Your task to perform on an android device: Go to wifi settings Image 0: 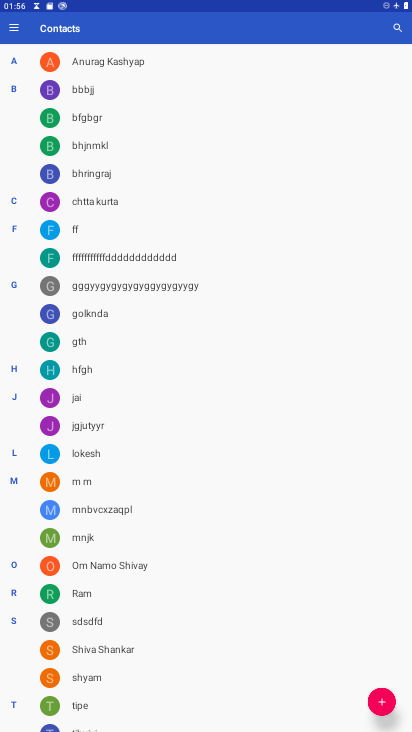
Step 0: press home button
Your task to perform on an android device: Go to wifi settings Image 1: 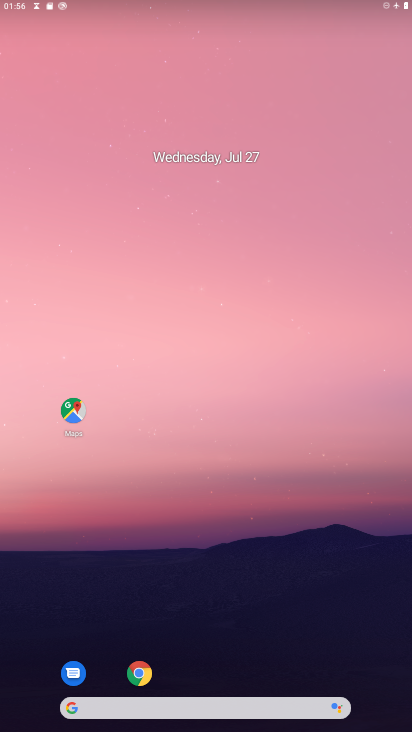
Step 1: drag from (136, 669) to (189, 218)
Your task to perform on an android device: Go to wifi settings Image 2: 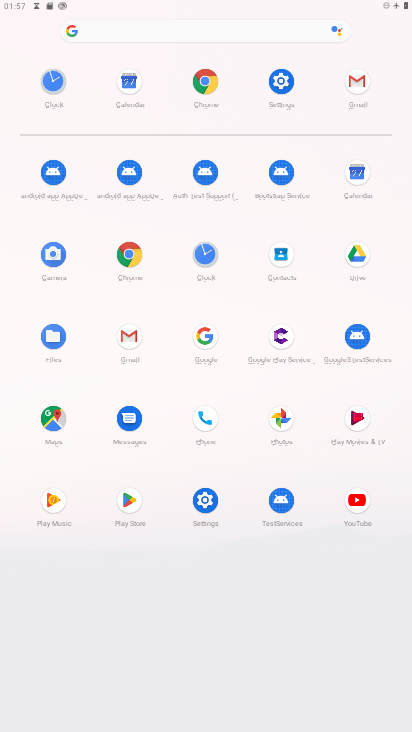
Step 2: click (282, 77)
Your task to perform on an android device: Go to wifi settings Image 3: 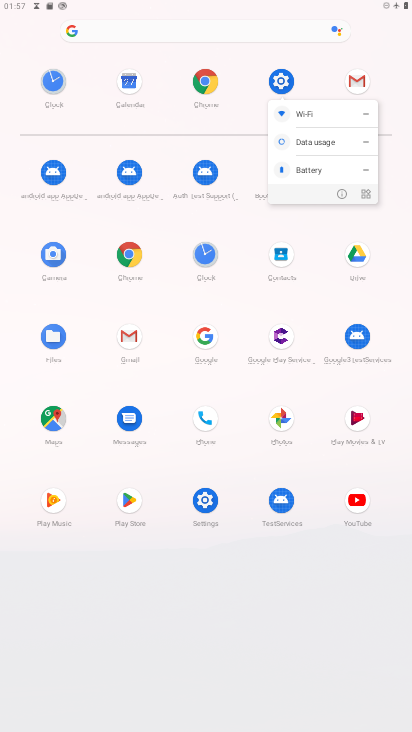
Step 3: click (287, 77)
Your task to perform on an android device: Go to wifi settings Image 4: 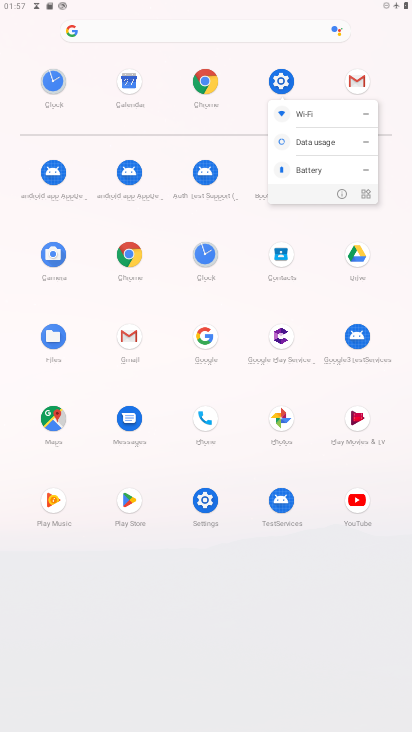
Step 4: click (287, 77)
Your task to perform on an android device: Go to wifi settings Image 5: 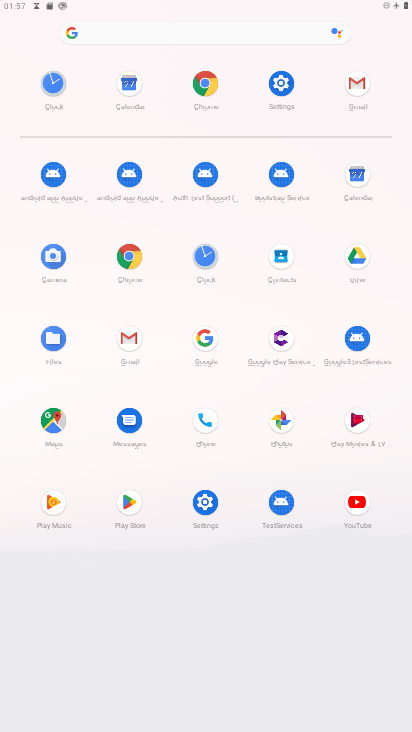
Step 5: click (275, 83)
Your task to perform on an android device: Go to wifi settings Image 6: 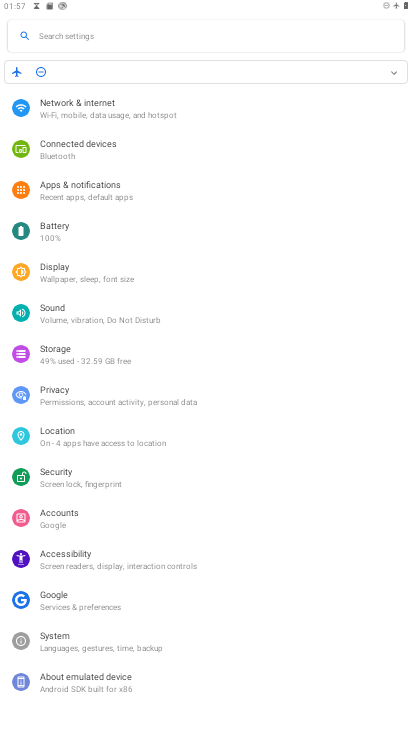
Step 6: click (86, 119)
Your task to perform on an android device: Go to wifi settings Image 7: 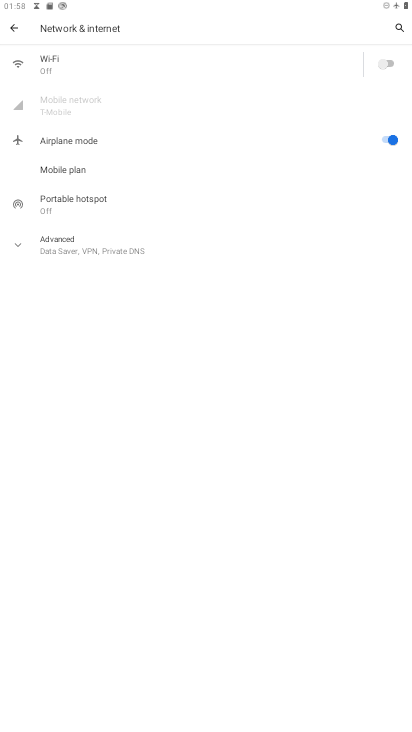
Step 7: click (188, 74)
Your task to perform on an android device: Go to wifi settings Image 8: 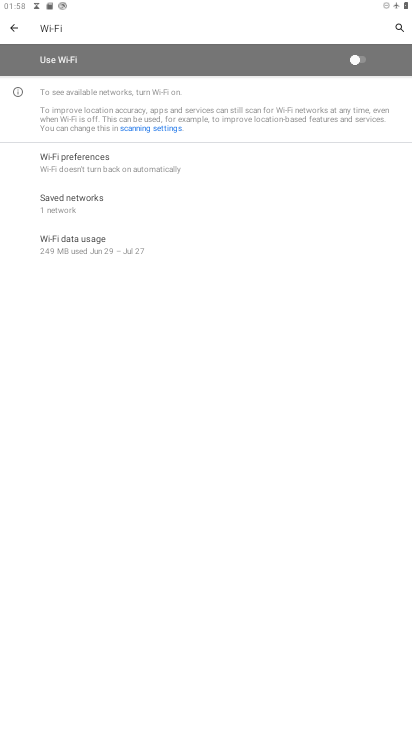
Step 8: task complete